Your task to perform on an android device: snooze an email in the gmail app Image 0: 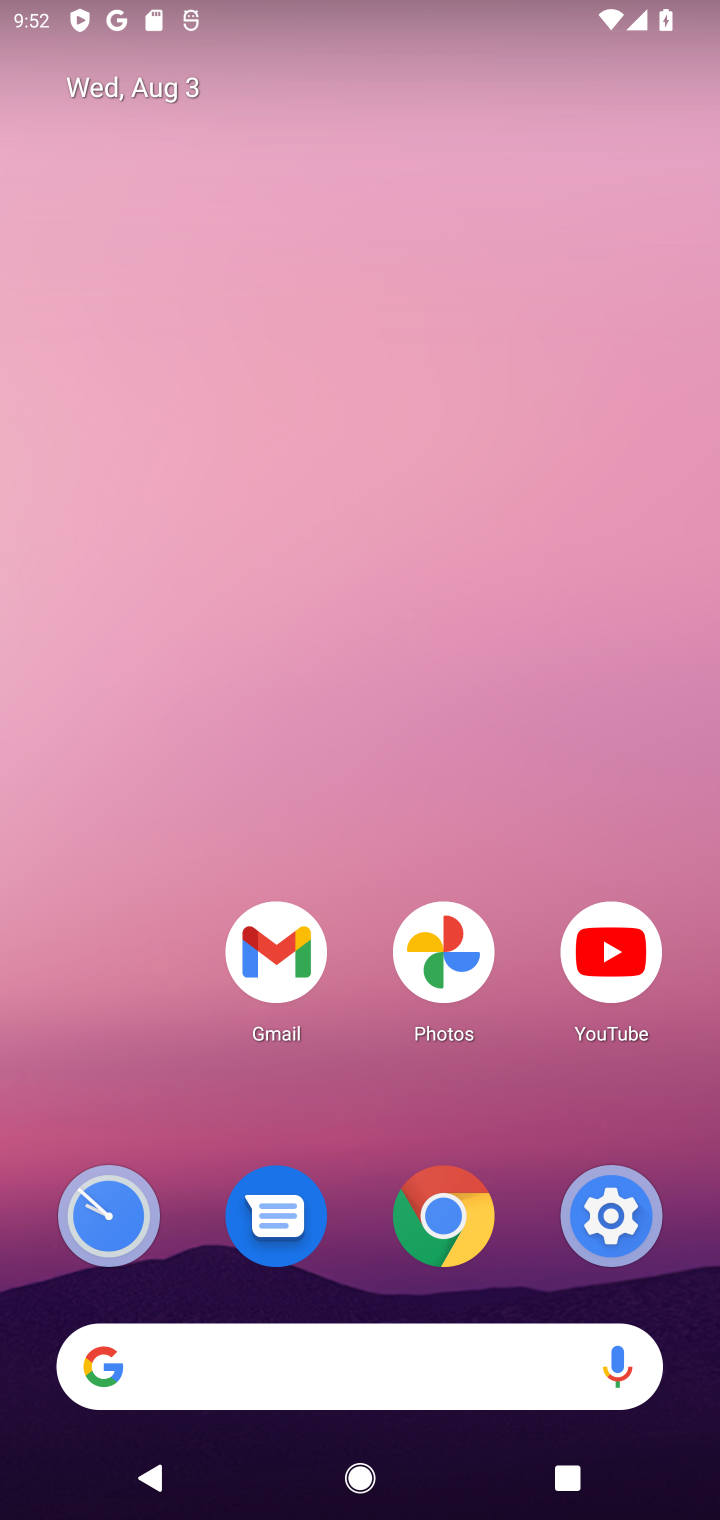
Step 0: drag from (231, 728) to (267, 66)
Your task to perform on an android device: snooze an email in the gmail app Image 1: 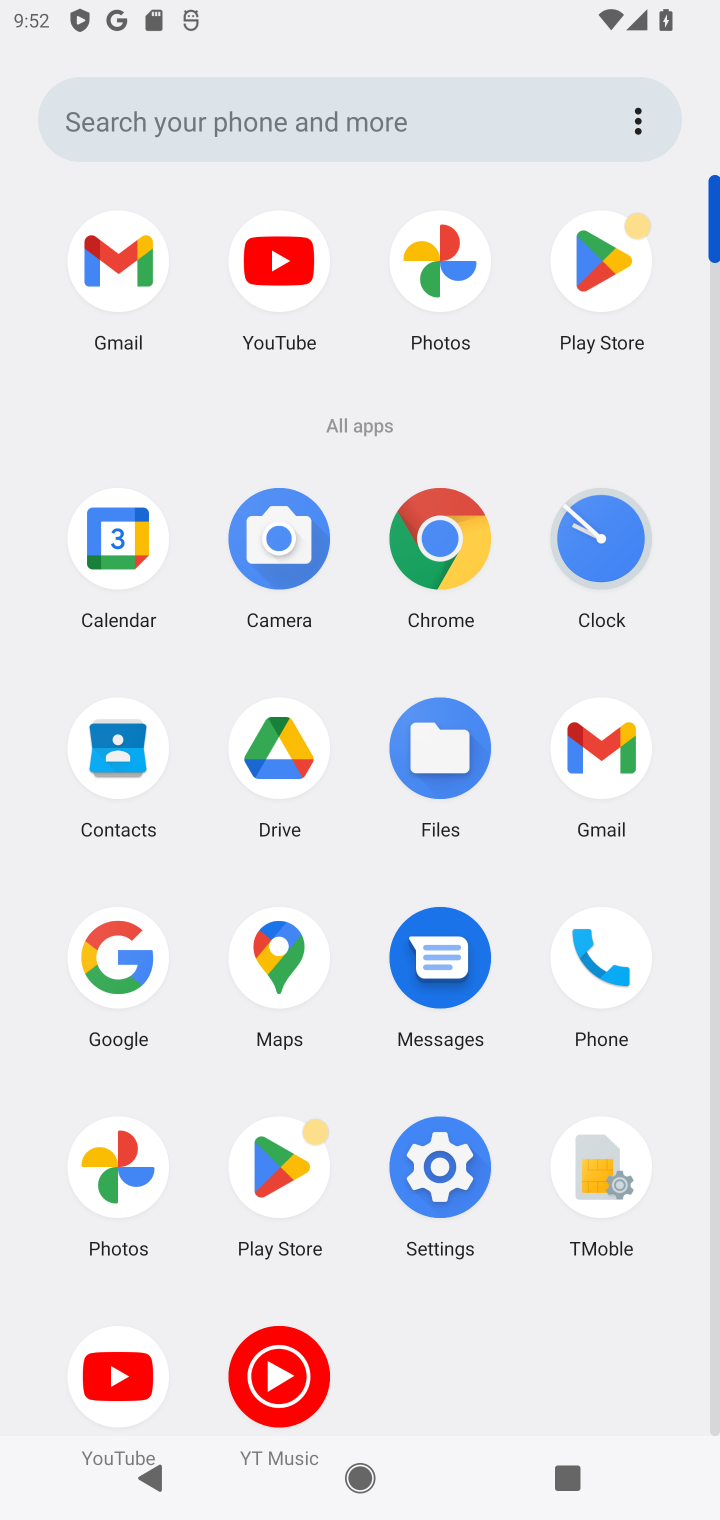
Step 1: click (129, 252)
Your task to perform on an android device: snooze an email in the gmail app Image 2: 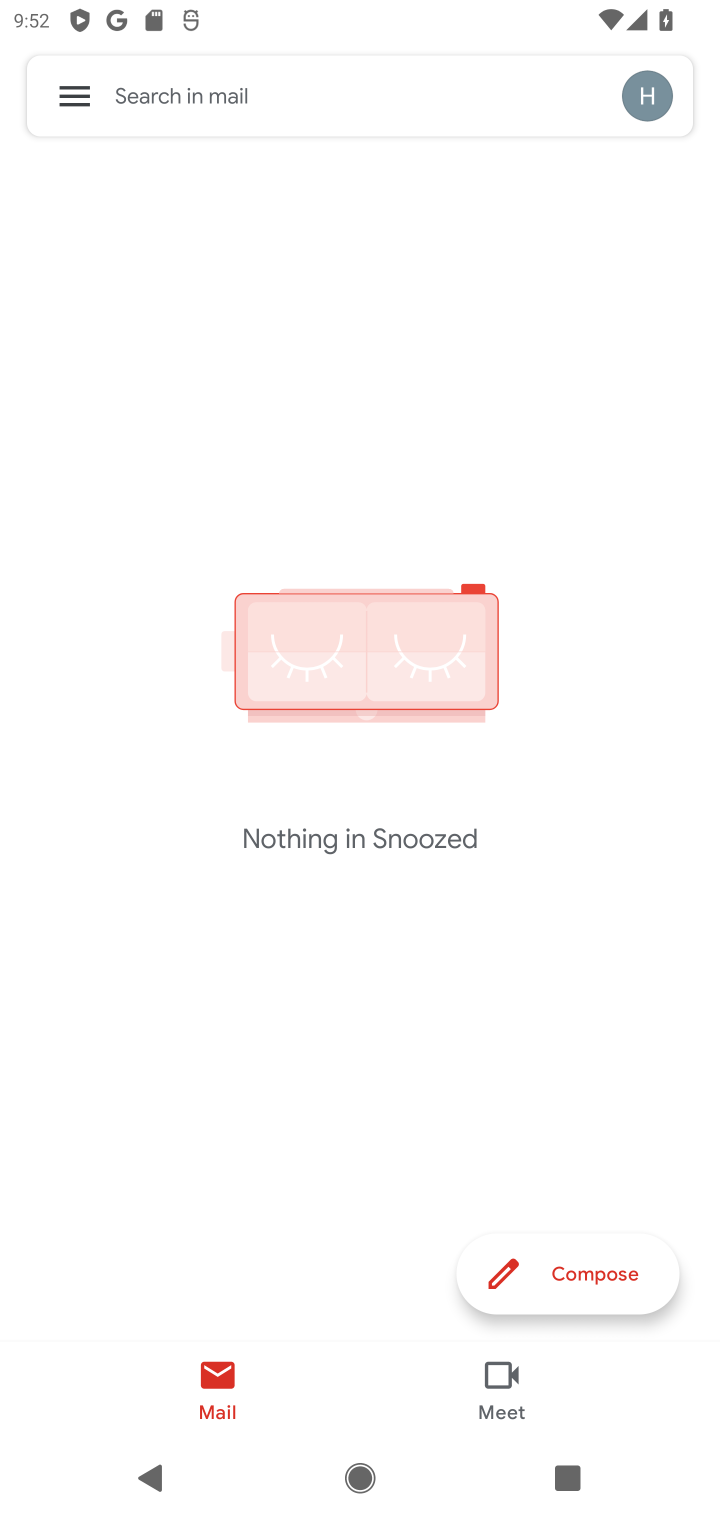
Step 2: click (83, 76)
Your task to perform on an android device: snooze an email in the gmail app Image 3: 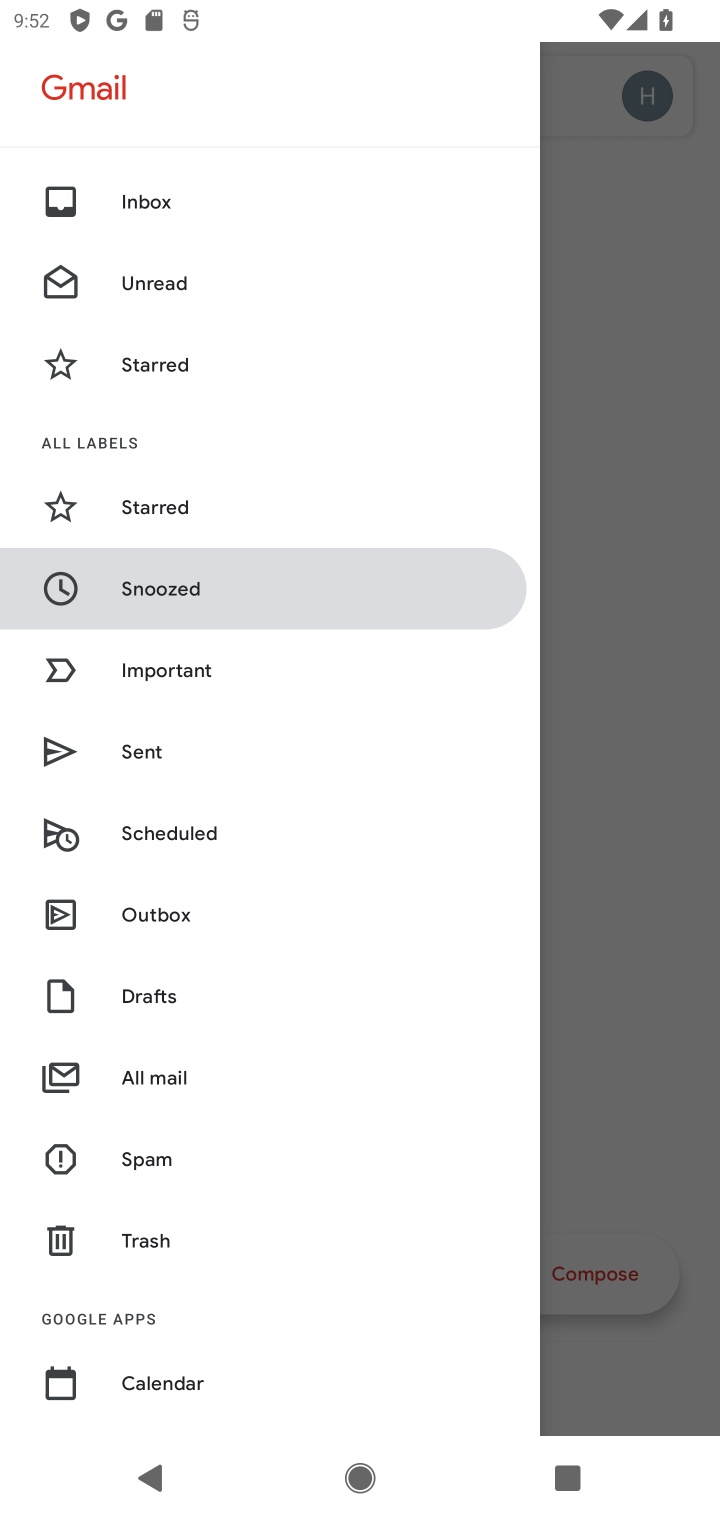
Step 3: click (139, 1086)
Your task to perform on an android device: snooze an email in the gmail app Image 4: 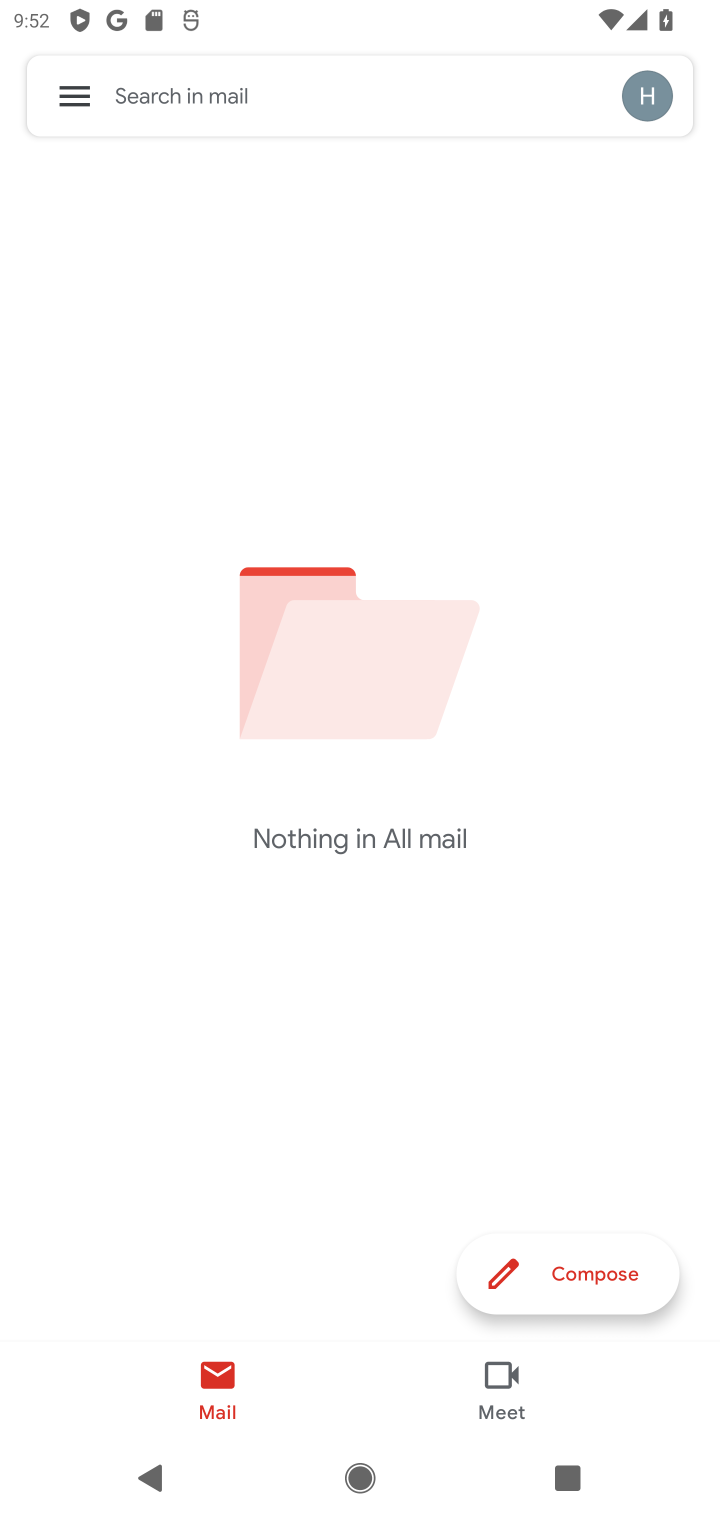
Step 4: task complete